Your task to perform on an android device: change the clock style Image 0: 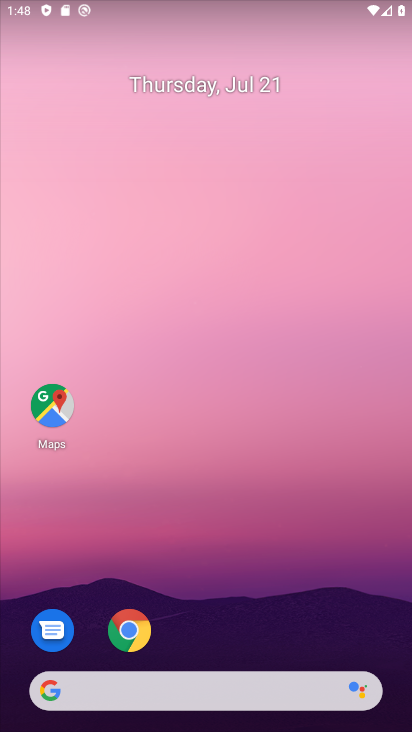
Step 0: drag from (188, 624) to (228, 138)
Your task to perform on an android device: change the clock style Image 1: 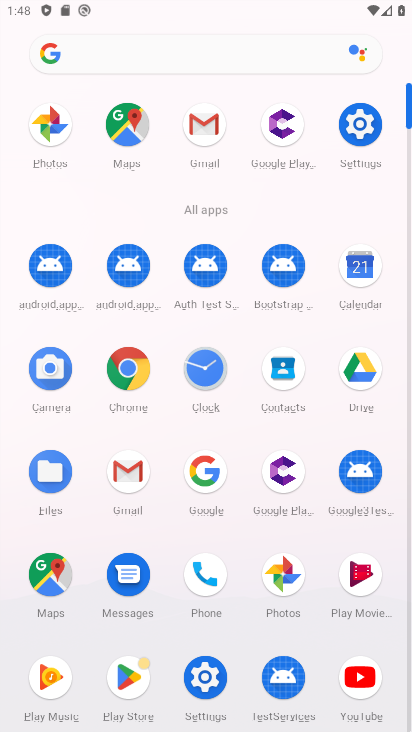
Step 1: click (207, 370)
Your task to perform on an android device: change the clock style Image 2: 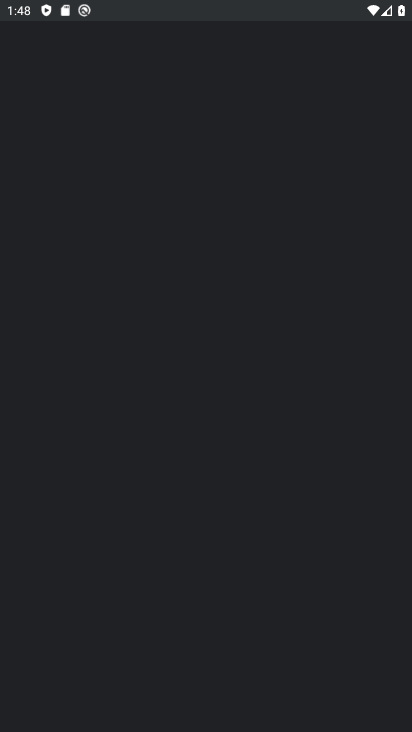
Step 2: click (209, 370)
Your task to perform on an android device: change the clock style Image 3: 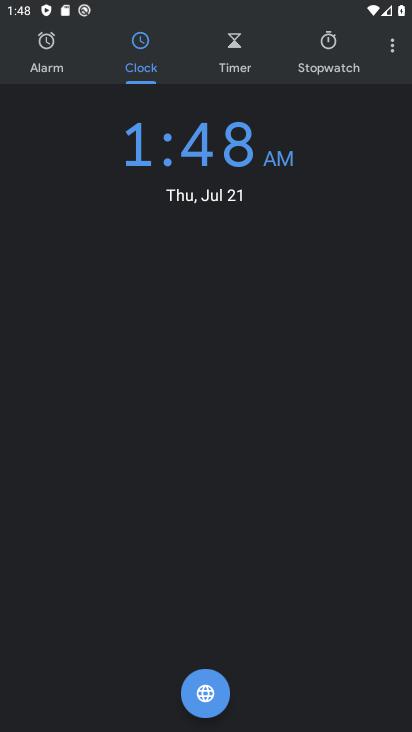
Step 3: click (387, 50)
Your task to perform on an android device: change the clock style Image 4: 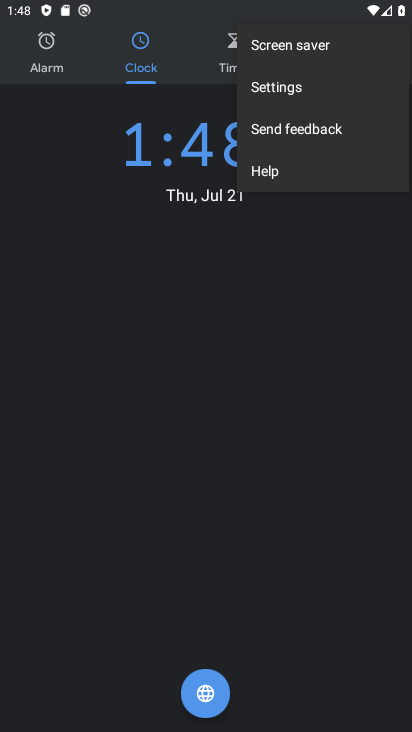
Step 4: click (309, 98)
Your task to perform on an android device: change the clock style Image 5: 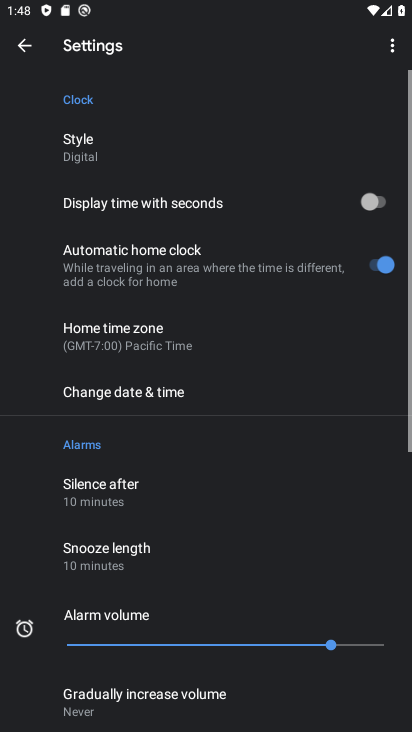
Step 5: click (91, 144)
Your task to perform on an android device: change the clock style Image 6: 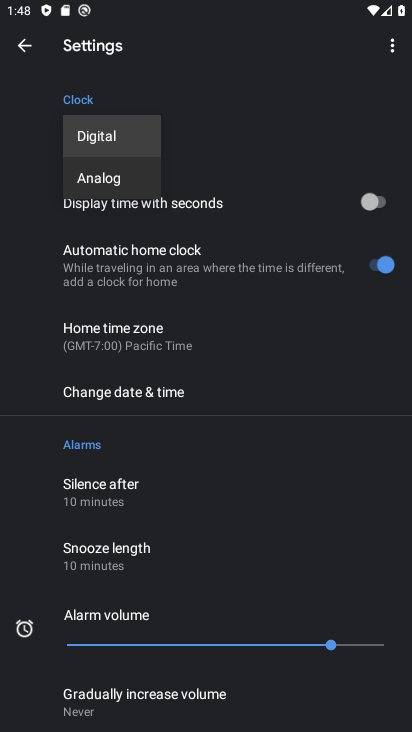
Step 6: click (94, 176)
Your task to perform on an android device: change the clock style Image 7: 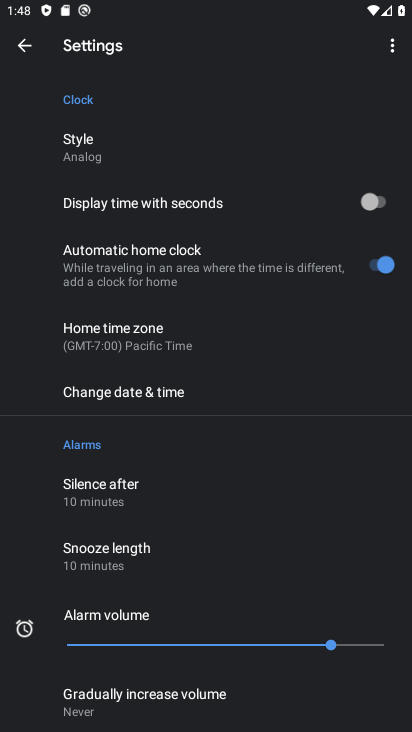
Step 7: task complete